Your task to perform on an android device: Open network settings Image 0: 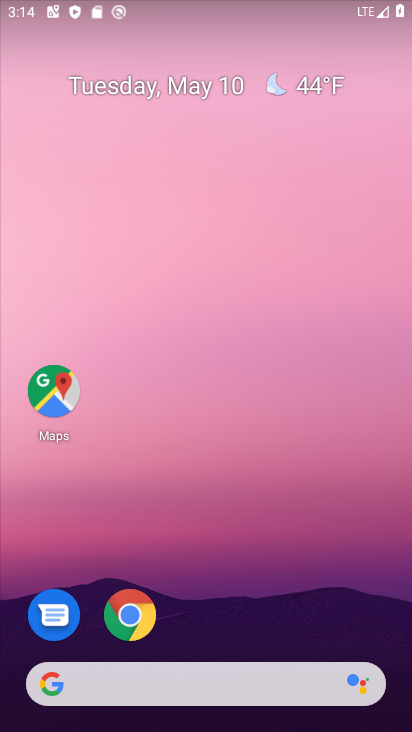
Step 0: drag from (193, 577) to (208, 20)
Your task to perform on an android device: Open network settings Image 1: 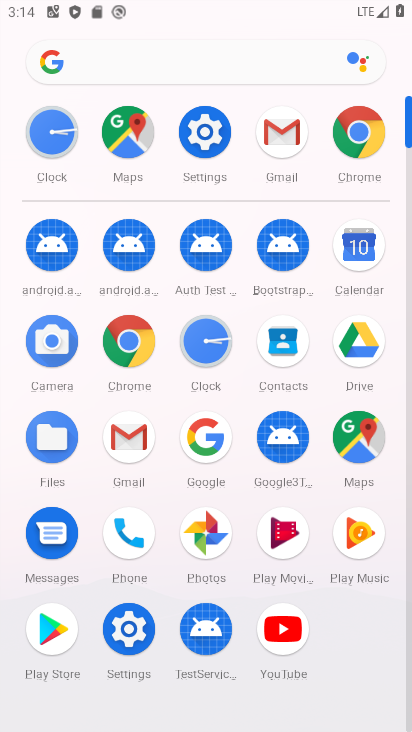
Step 1: click (197, 127)
Your task to perform on an android device: Open network settings Image 2: 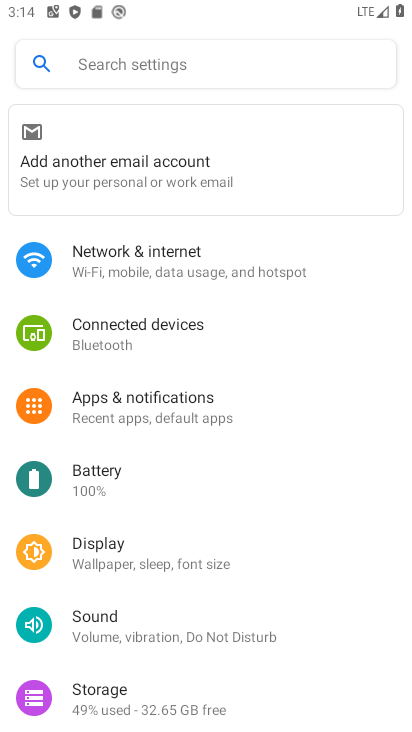
Step 2: click (181, 258)
Your task to perform on an android device: Open network settings Image 3: 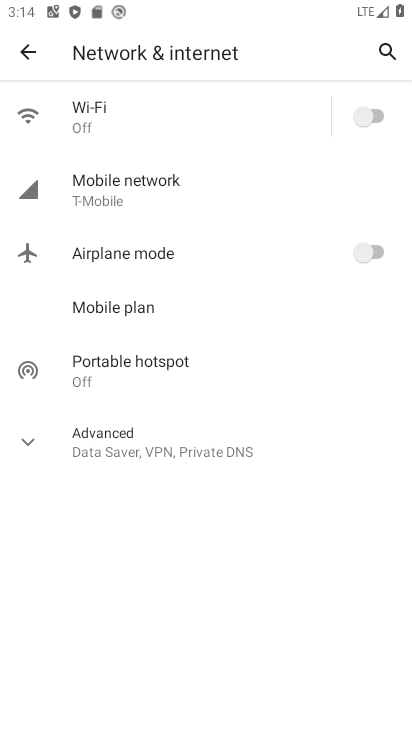
Step 3: task complete